Your task to perform on an android device: Show me the alarms in the clock app Image 0: 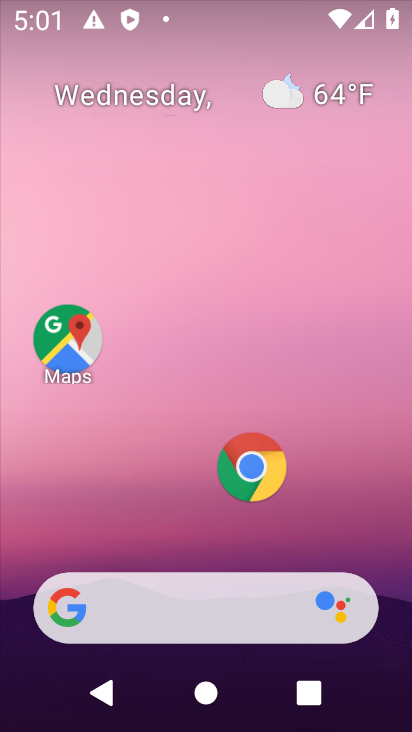
Step 0: drag from (171, 503) to (250, 118)
Your task to perform on an android device: Show me the alarms in the clock app Image 1: 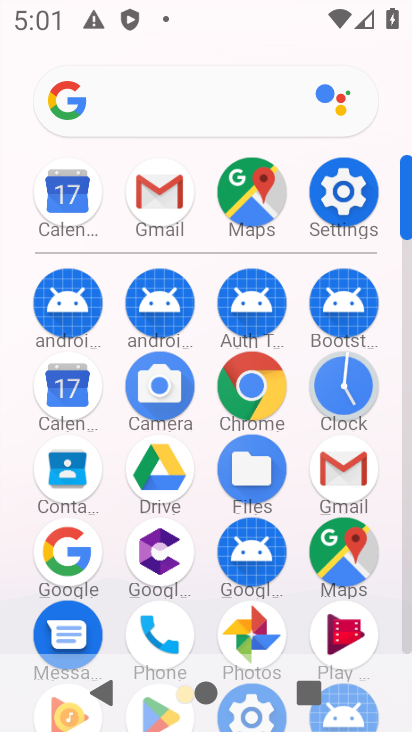
Step 1: task complete